Your task to perform on an android device: Show me productivity apps on the Play Store Image 0: 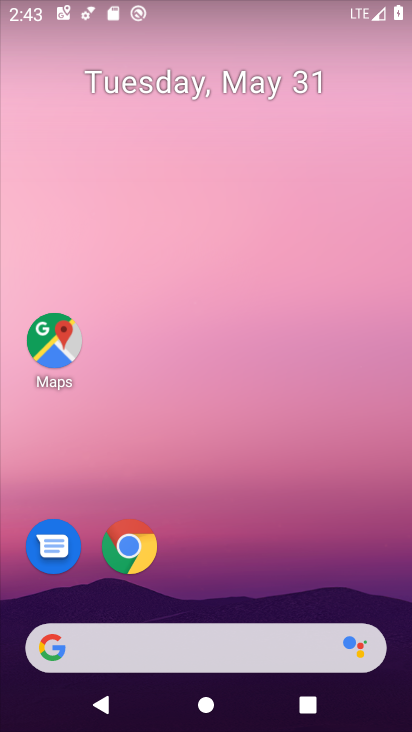
Step 0: drag from (306, 522) to (189, 131)
Your task to perform on an android device: Show me productivity apps on the Play Store Image 1: 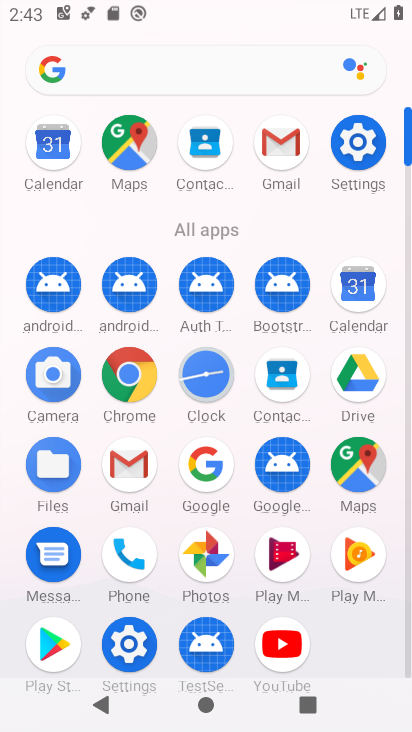
Step 1: click (61, 643)
Your task to perform on an android device: Show me productivity apps on the Play Store Image 2: 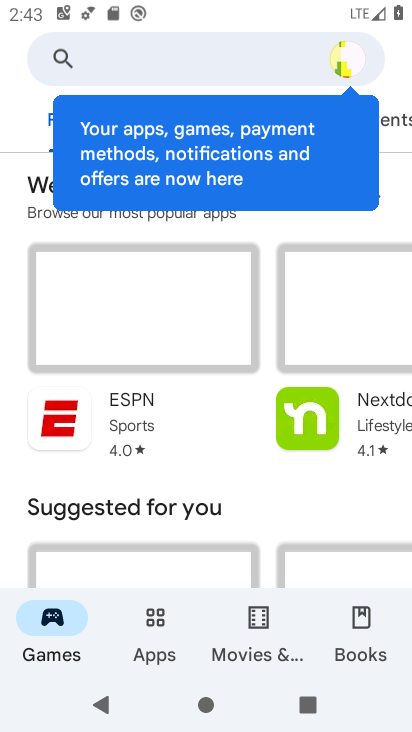
Step 2: click (170, 631)
Your task to perform on an android device: Show me productivity apps on the Play Store Image 3: 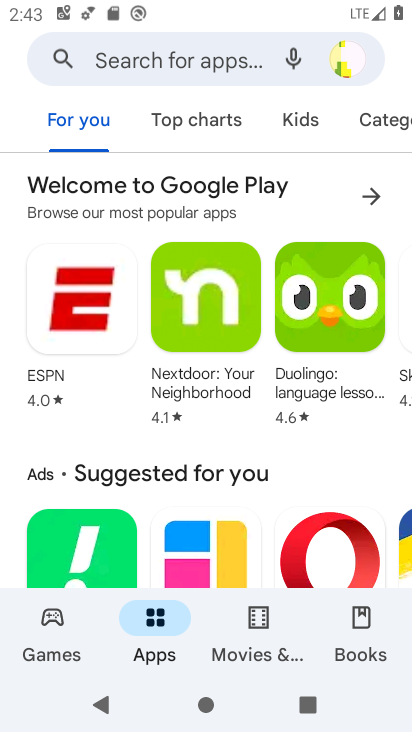
Step 3: click (151, 64)
Your task to perform on an android device: Show me productivity apps on the Play Store Image 4: 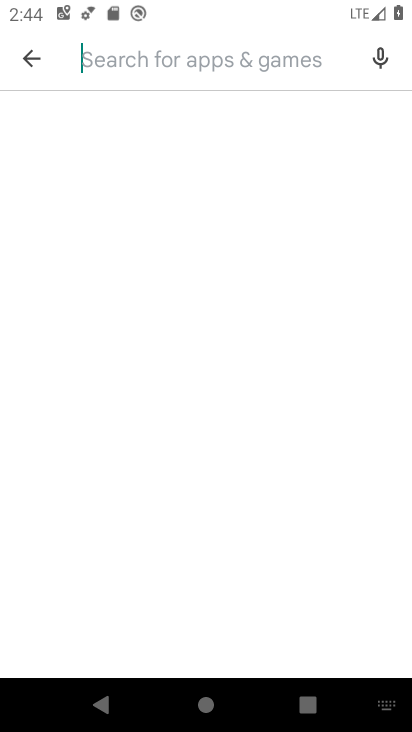
Step 4: type "productivity apps"
Your task to perform on an android device: Show me productivity apps on the Play Store Image 5: 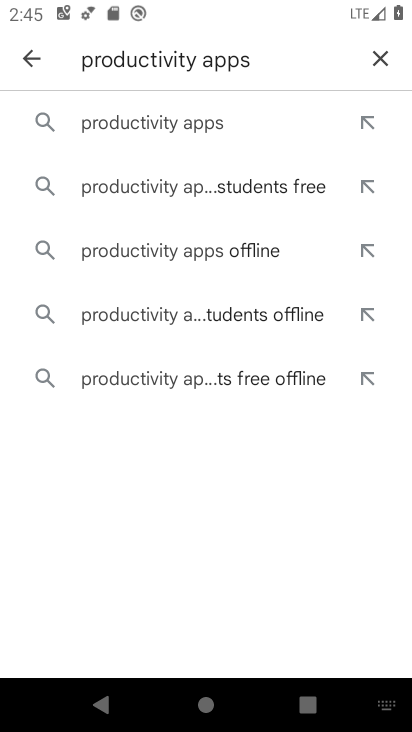
Step 5: click (212, 117)
Your task to perform on an android device: Show me productivity apps on the Play Store Image 6: 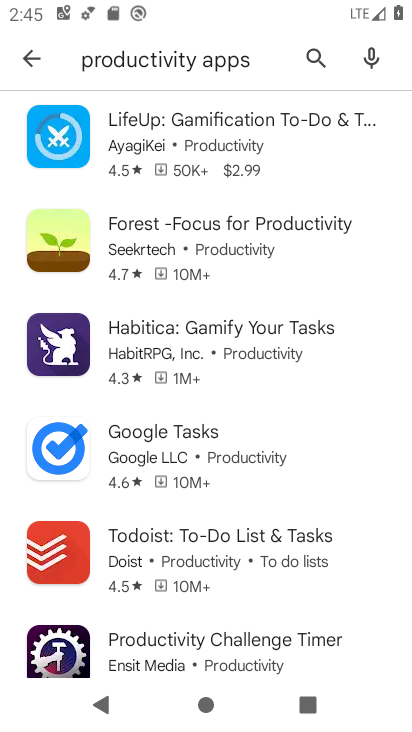
Step 6: task complete